Your task to perform on an android device: Check the news Image 0: 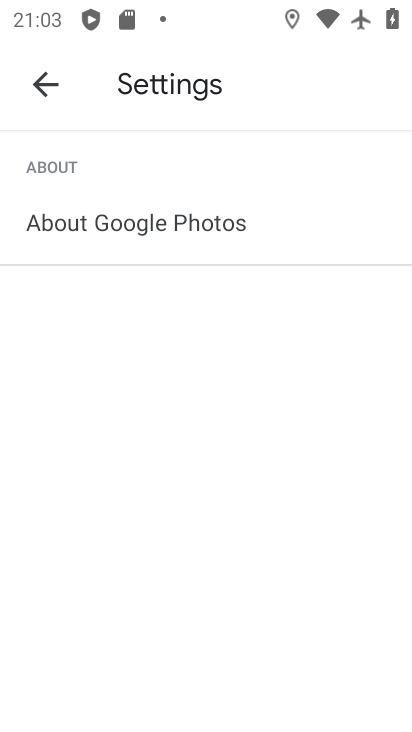
Step 0: press home button
Your task to perform on an android device: Check the news Image 1: 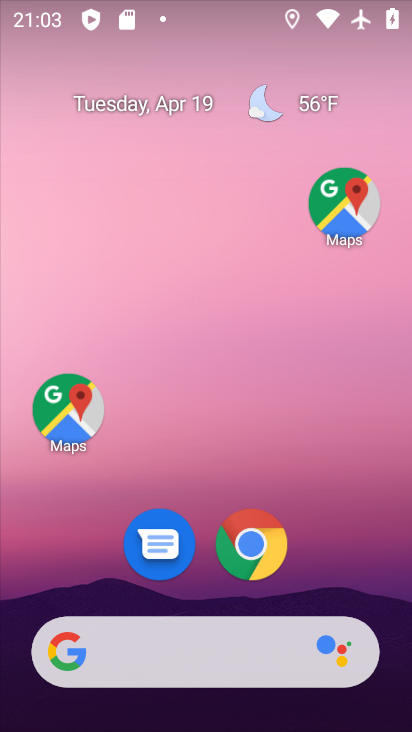
Step 1: task complete